Your task to perform on an android device: When is my next meeting? Image 0: 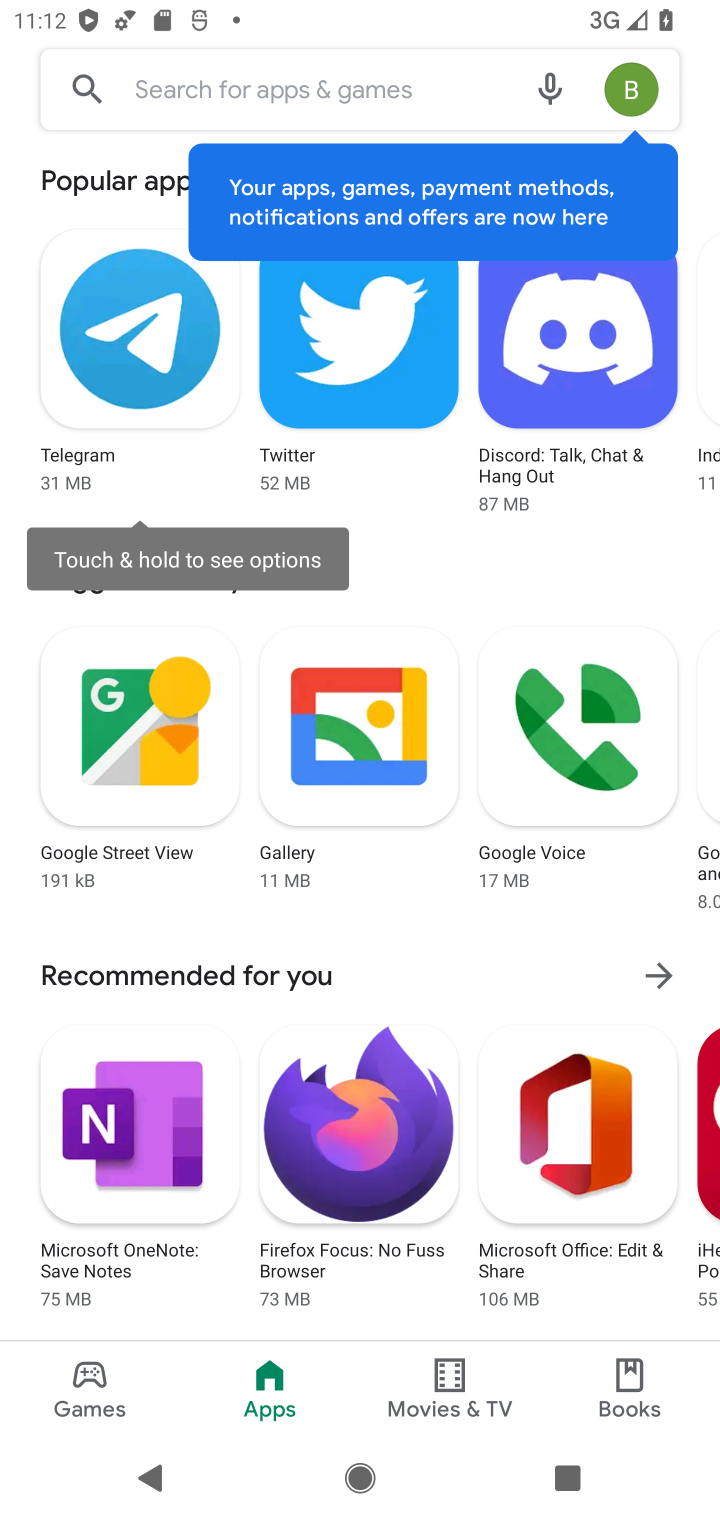
Step 0: press home button
Your task to perform on an android device: When is my next meeting? Image 1: 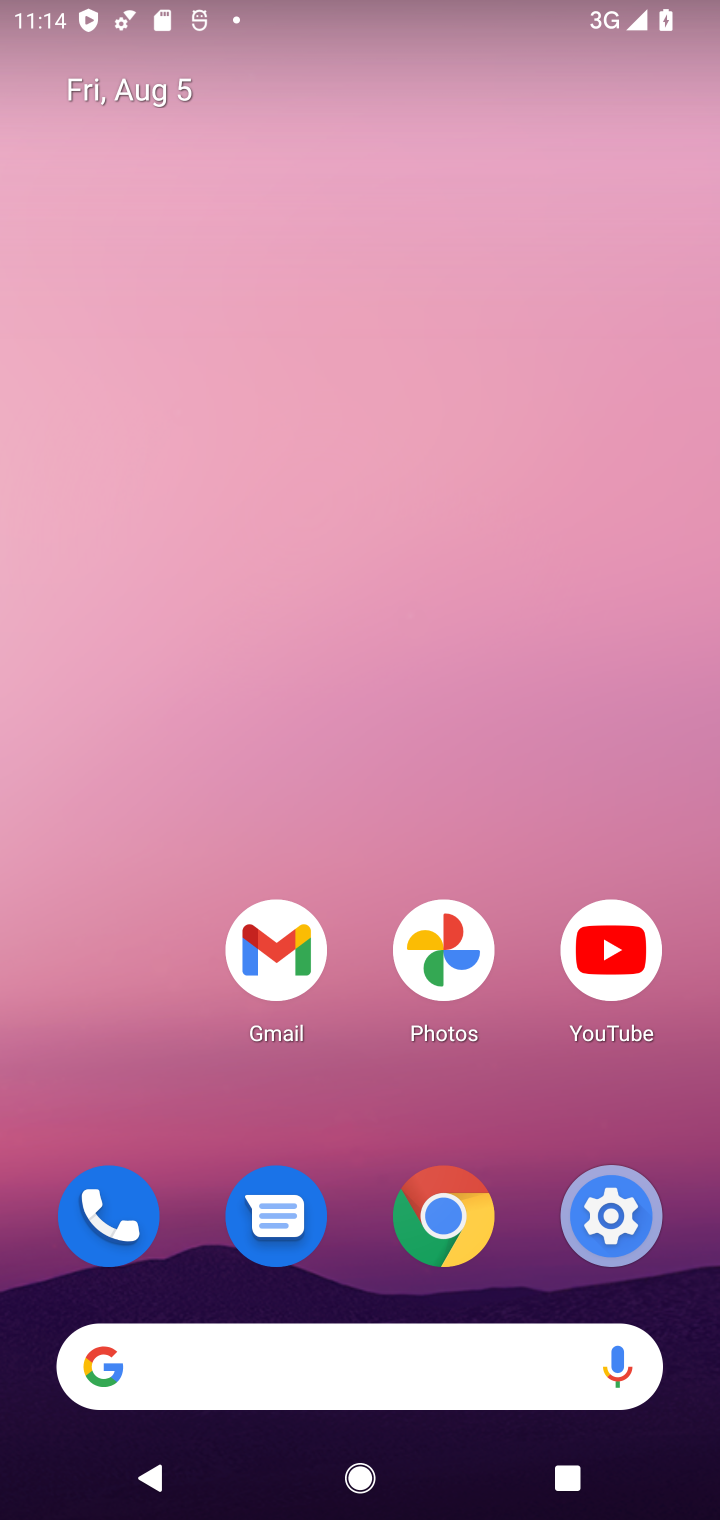
Step 1: drag from (330, 1368) to (315, 123)
Your task to perform on an android device: When is my next meeting? Image 2: 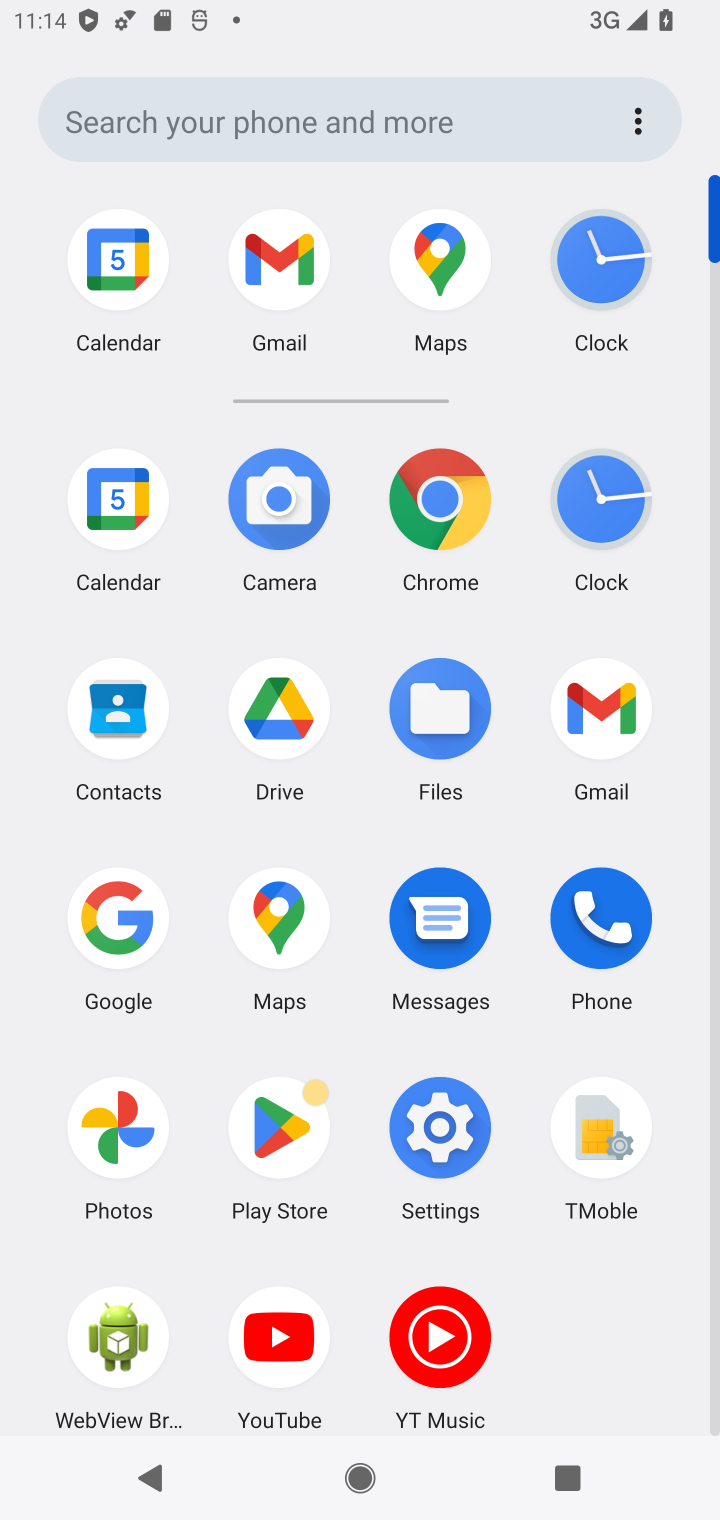
Step 2: click (138, 518)
Your task to perform on an android device: When is my next meeting? Image 3: 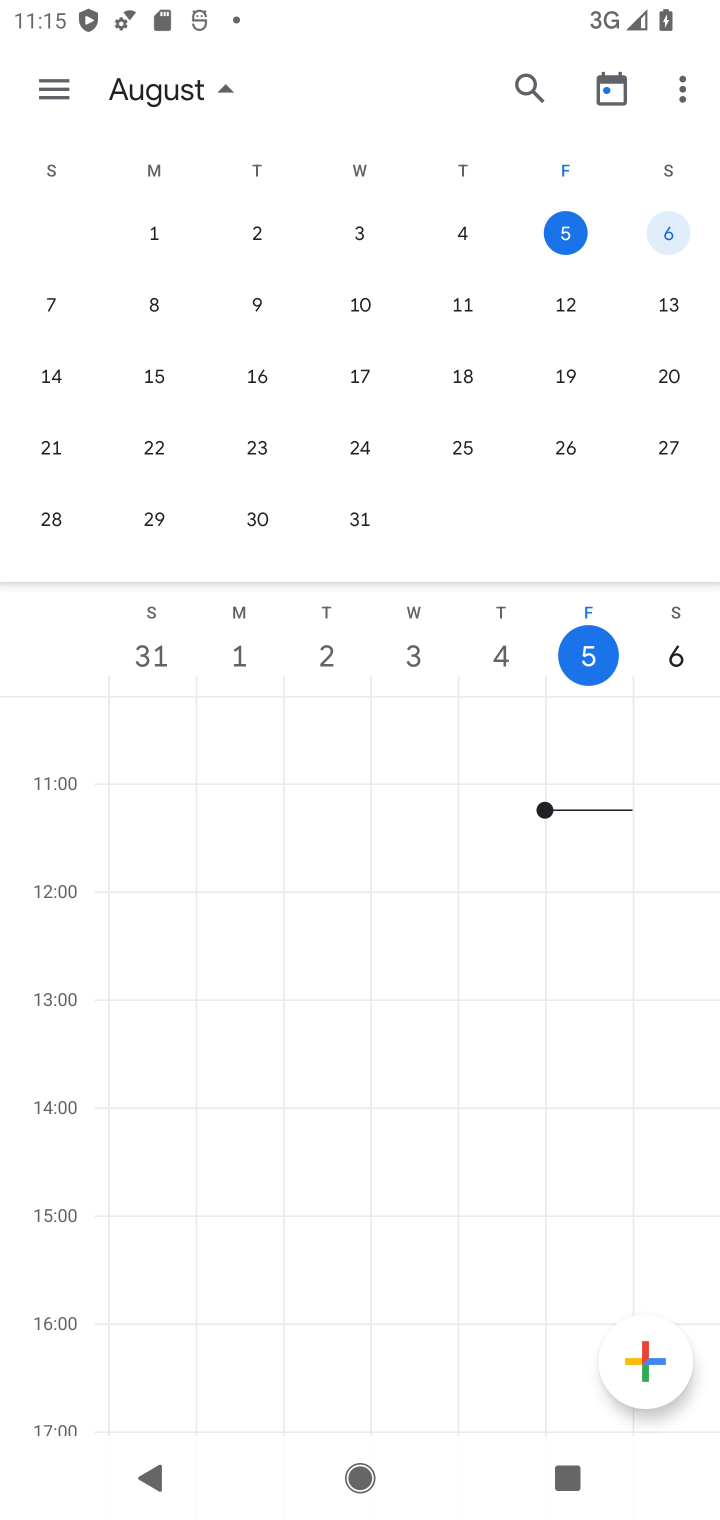
Step 3: task complete